Your task to perform on an android device: Empty the shopping cart on target.com. Add acer predator to the cart on target.com Image 0: 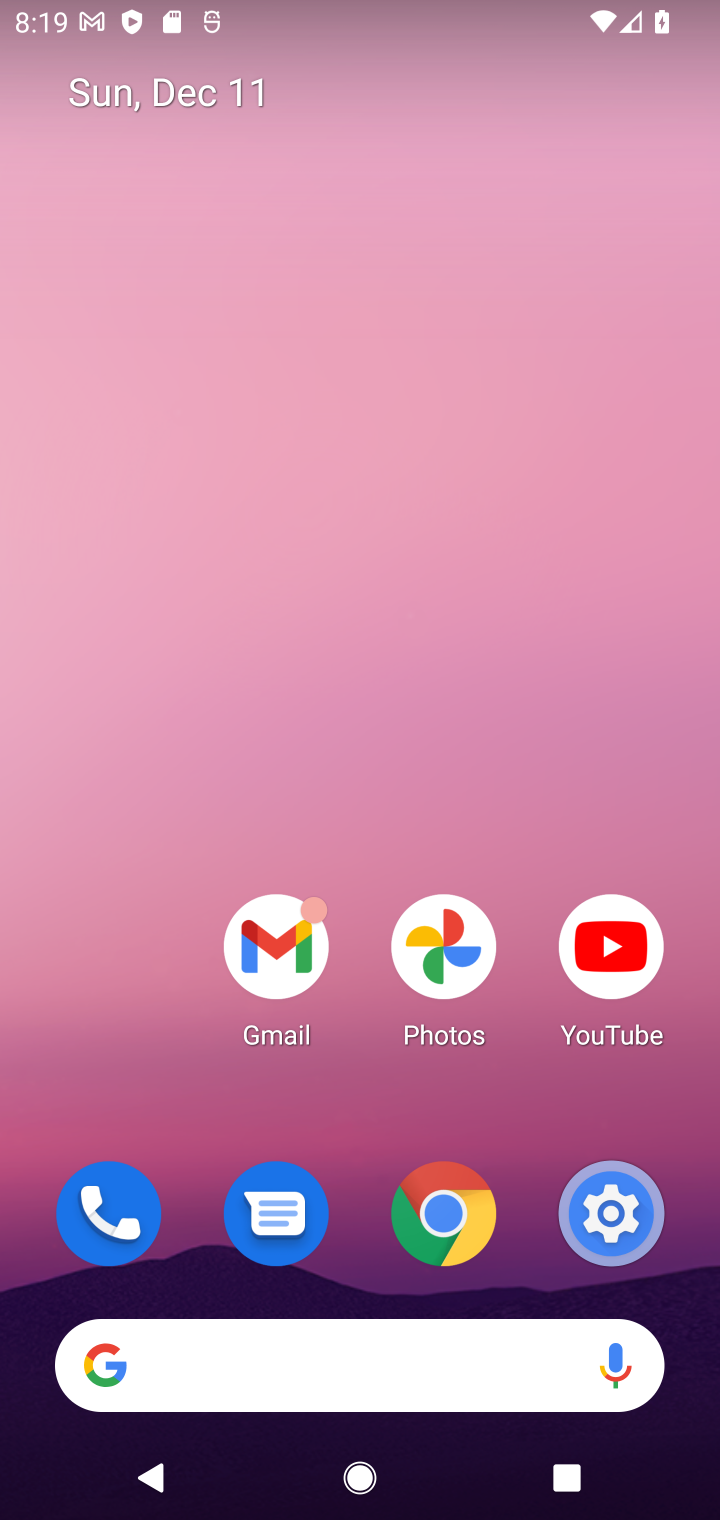
Step 0: click (431, 1353)
Your task to perform on an android device: Empty the shopping cart on target.com. Add acer predator to the cart on target.com Image 1: 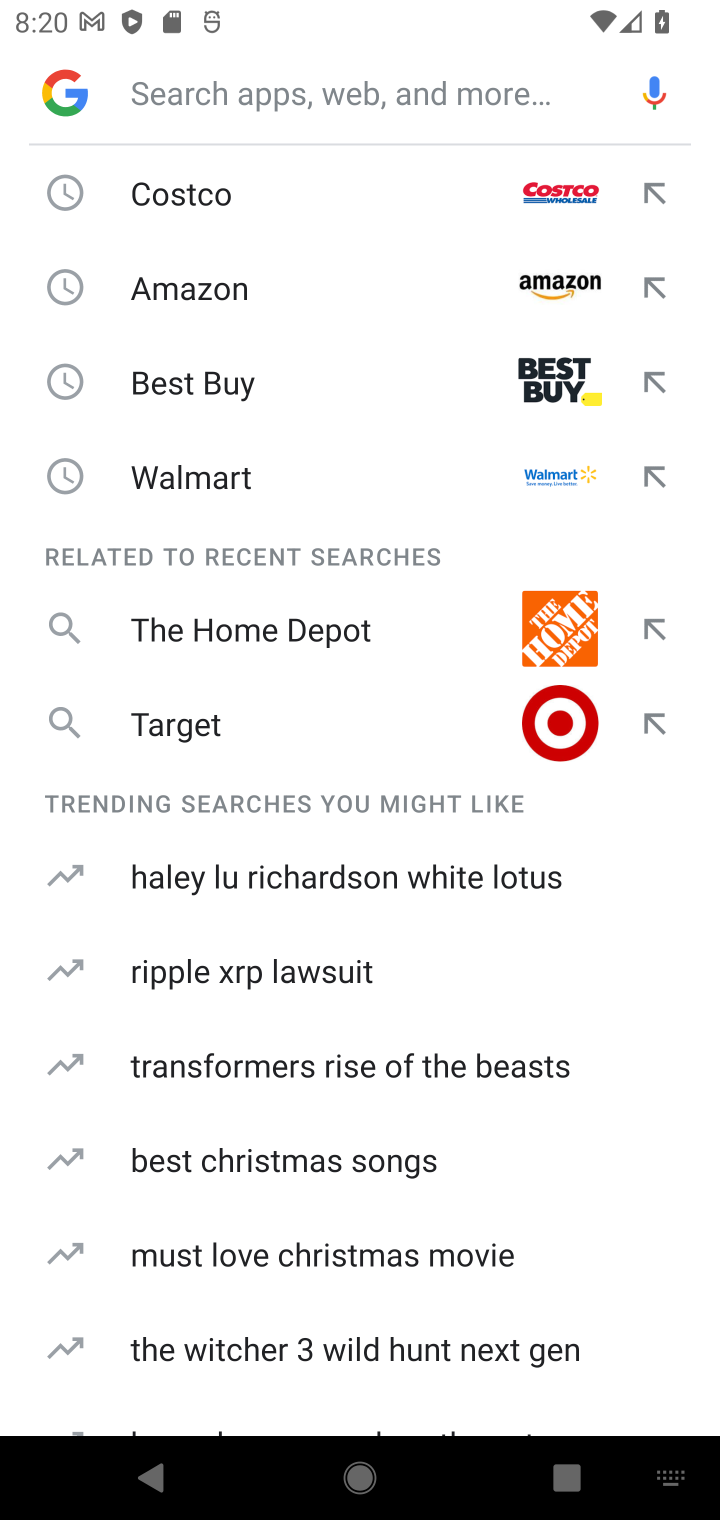
Step 1: type "target"
Your task to perform on an android device: Empty the shopping cart on target.com. Add acer predator to the cart on target.com Image 2: 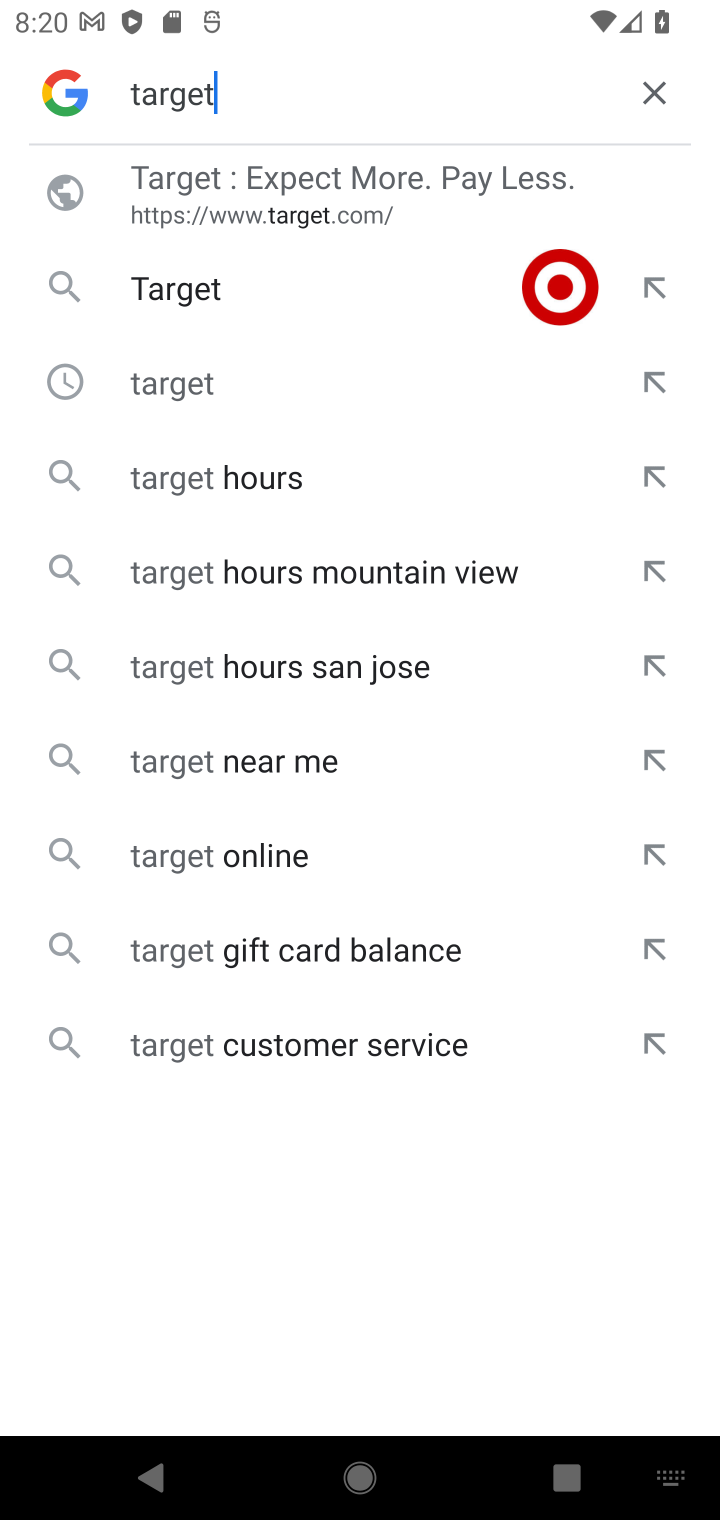
Step 2: click (519, 163)
Your task to perform on an android device: Empty the shopping cart on target.com. Add acer predator to the cart on target.com Image 3: 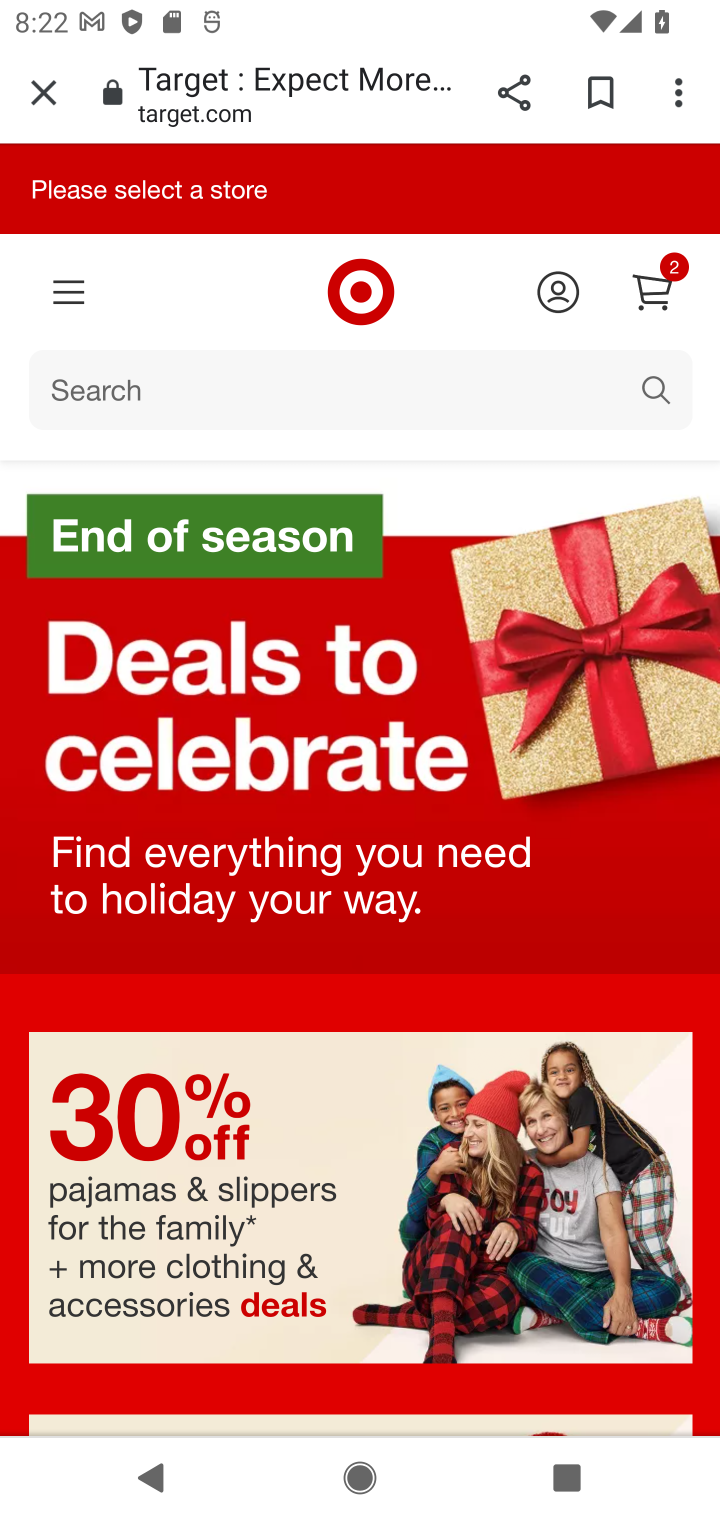
Step 3: task complete